Your task to perform on an android device: Open Google Maps Image 0: 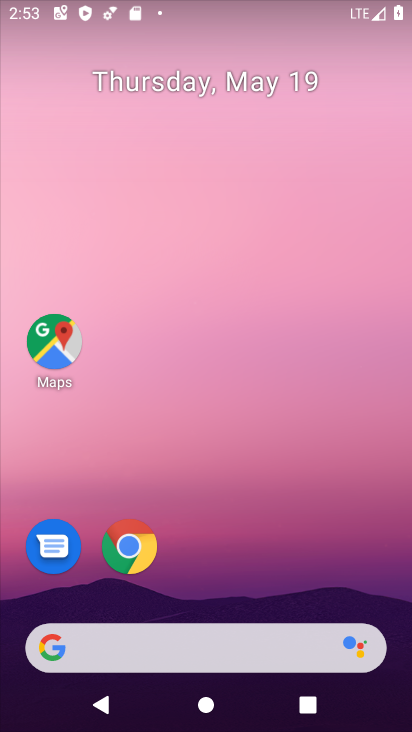
Step 0: click (58, 359)
Your task to perform on an android device: Open Google Maps Image 1: 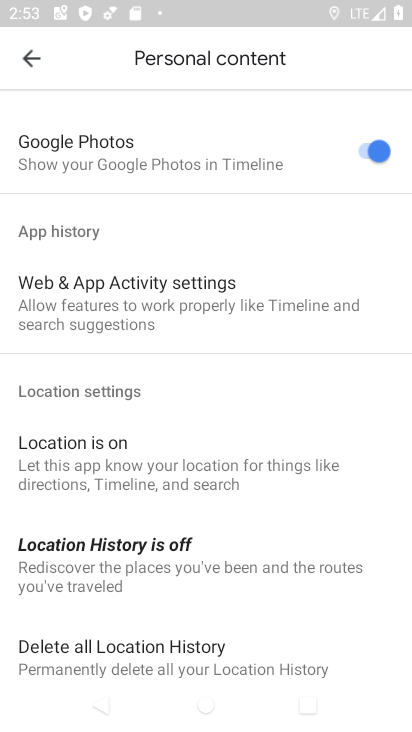
Step 1: click (35, 59)
Your task to perform on an android device: Open Google Maps Image 2: 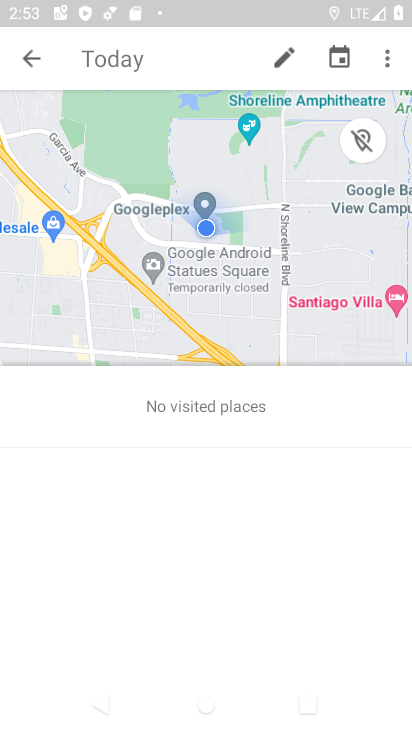
Step 2: click (35, 61)
Your task to perform on an android device: Open Google Maps Image 3: 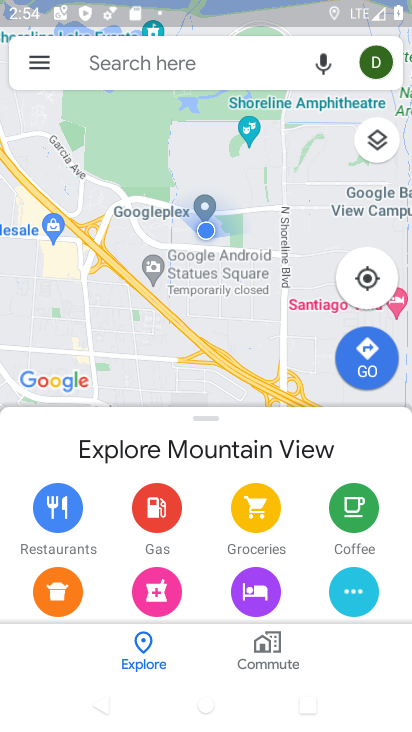
Step 3: task complete